Your task to perform on an android device: add a contact Image 0: 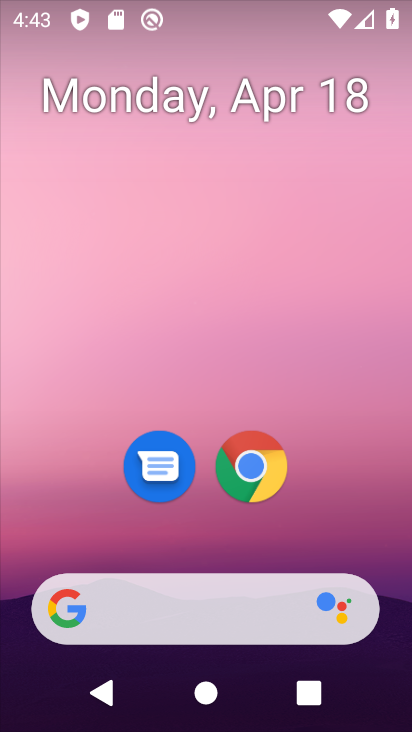
Step 0: drag from (320, 538) to (221, 25)
Your task to perform on an android device: add a contact Image 1: 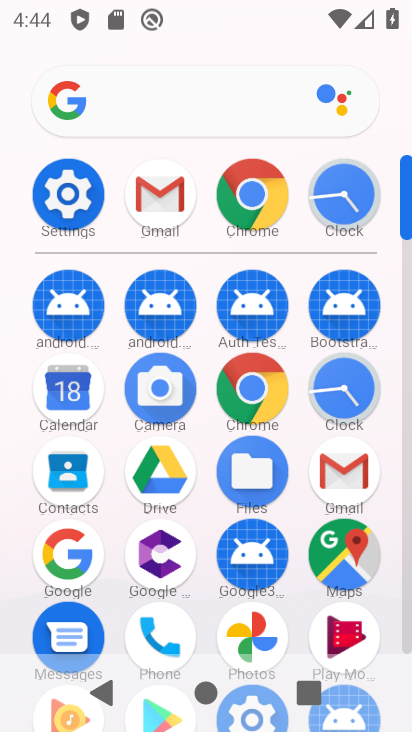
Step 1: drag from (5, 508) to (0, 268)
Your task to perform on an android device: add a contact Image 2: 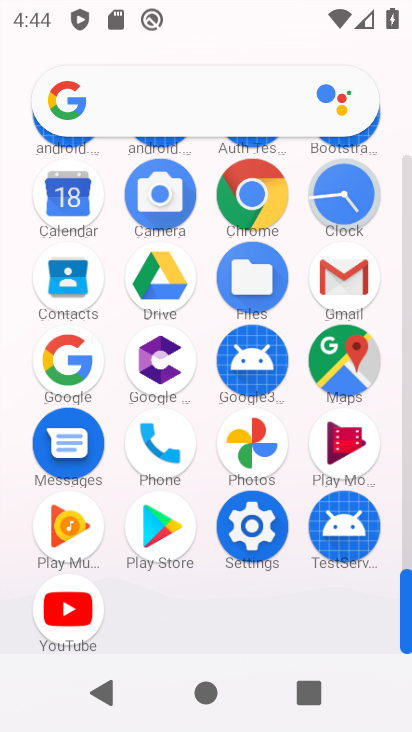
Step 2: click (61, 282)
Your task to perform on an android device: add a contact Image 3: 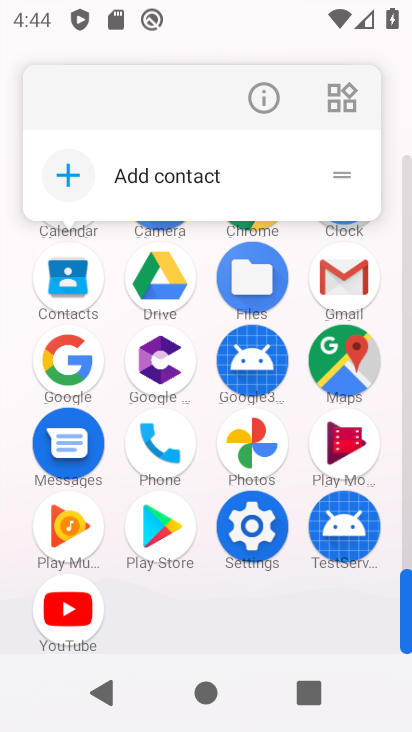
Step 3: click (67, 179)
Your task to perform on an android device: add a contact Image 4: 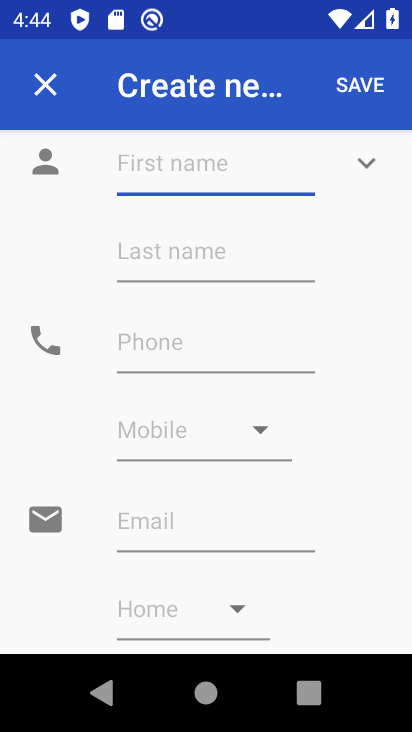
Step 4: type "Dsae"
Your task to perform on an android device: add a contact Image 5: 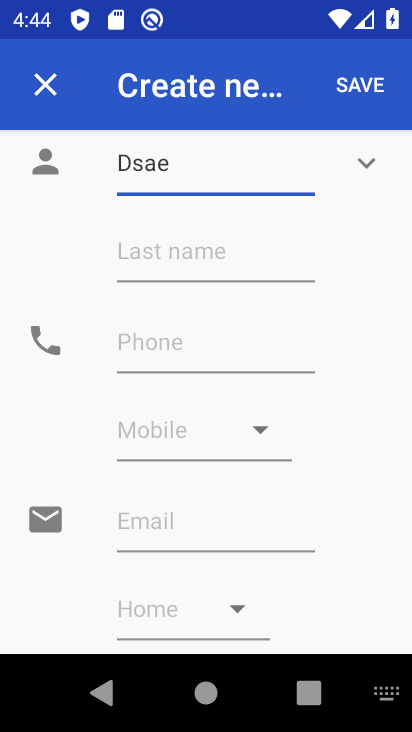
Step 5: click (209, 337)
Your task to perform on an android device: add a contact Image 6: 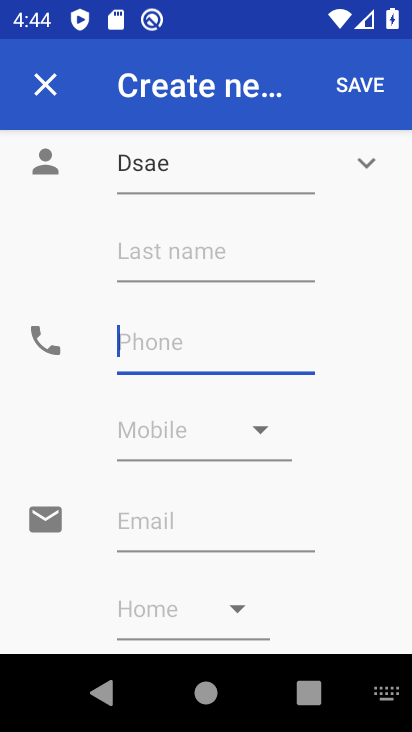
Step 6: type "323456"
Your task to perform on an android device: add a contact Image 7: 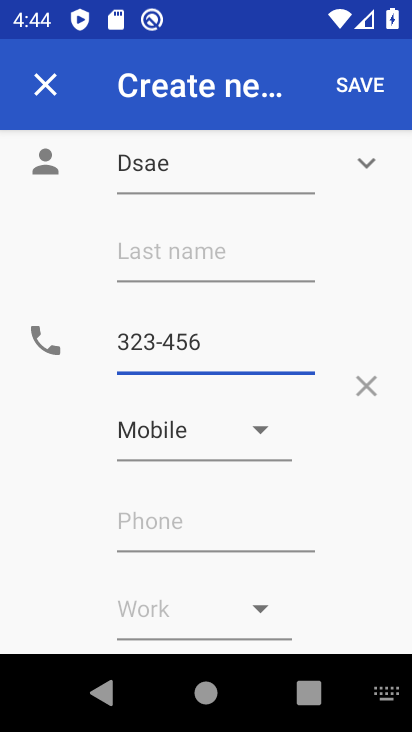
Step 7: click (359, 88)
Your task to perform on an android device: add a contact Image 8: 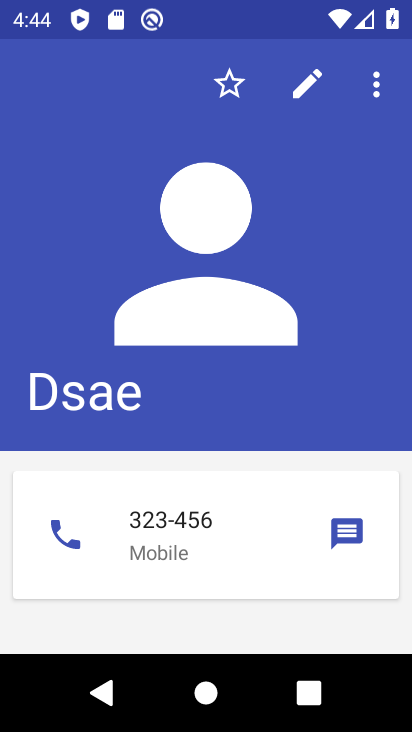
Step 8: task complete